Your task to perform on an android device: What's on my calendar today? Image 0: 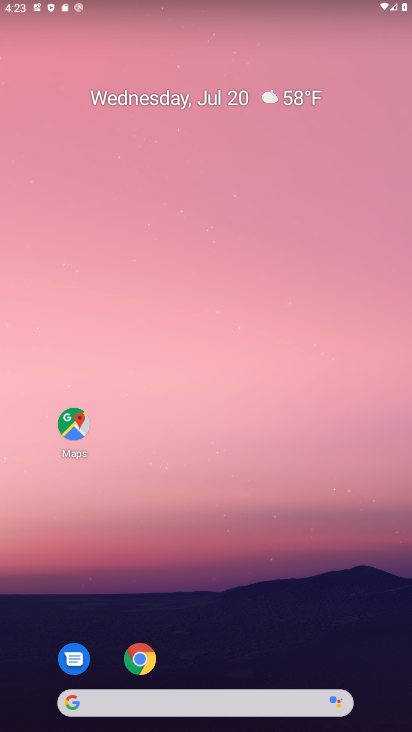
Step 0: drag from (301, 669) to (216, 92)
Your task to perform on an android device: What's on my calendar today? Image 1: 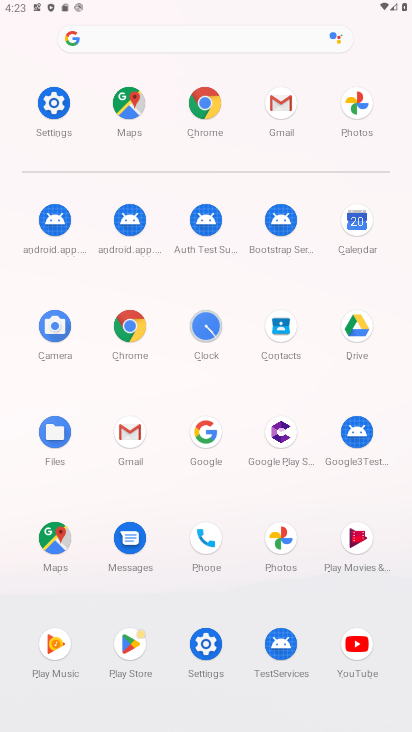
Step 1: click (351, 205)
Your task to perform on an android device: What's on my calendar today? Image 2: 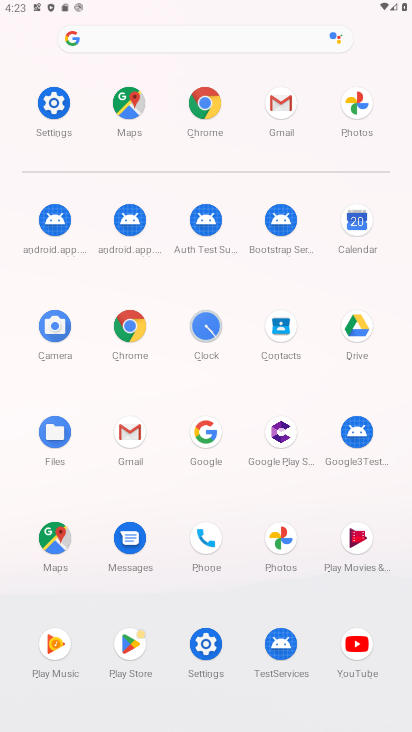
Step 2: click (365, 209)
Your task to perform on an android device: What's on my calendar today? Image 3: 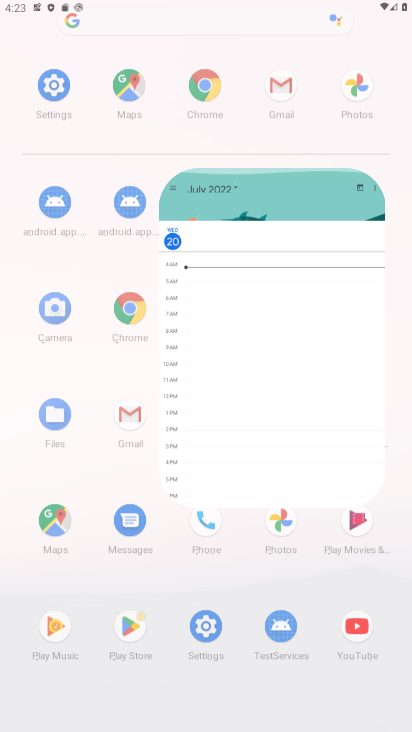
Step 3: click (366, 215)
Your task to perform on an android device: What's on my calendar today? Image 4: 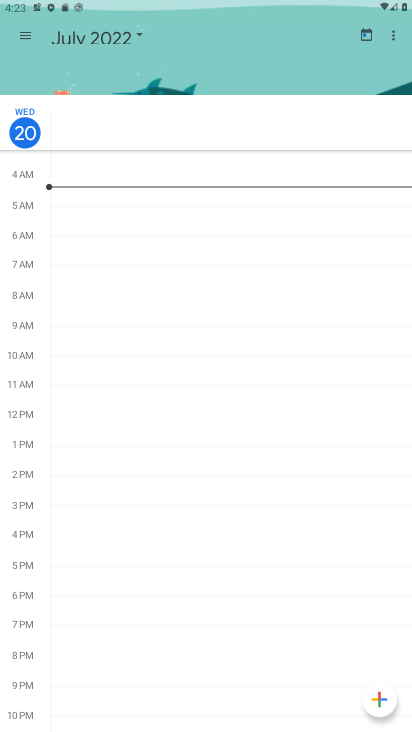
Step 4: click (139, 29)
Your task to perform on an android device: What's on my calendar today? Image 5: 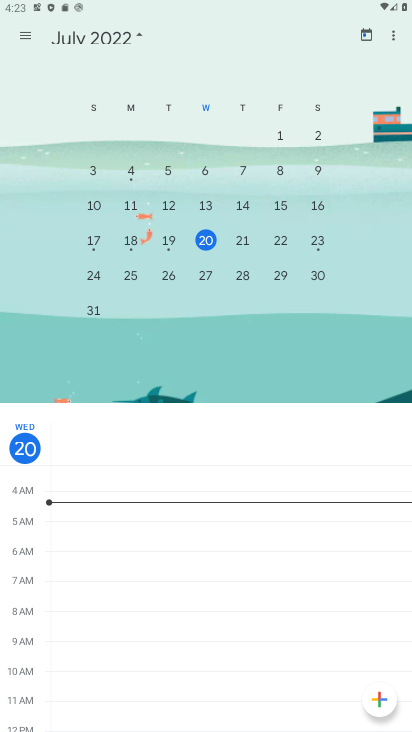
Step 5: task complete